Your task to perform on an android device: set the timer Image 0: 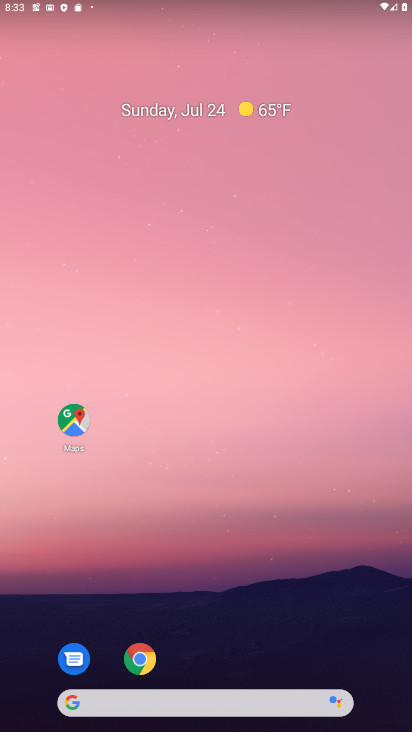
Step 0: drag from (255, 670) to (293, 44)
Your task to perform on an android device: set the timer Image 1: 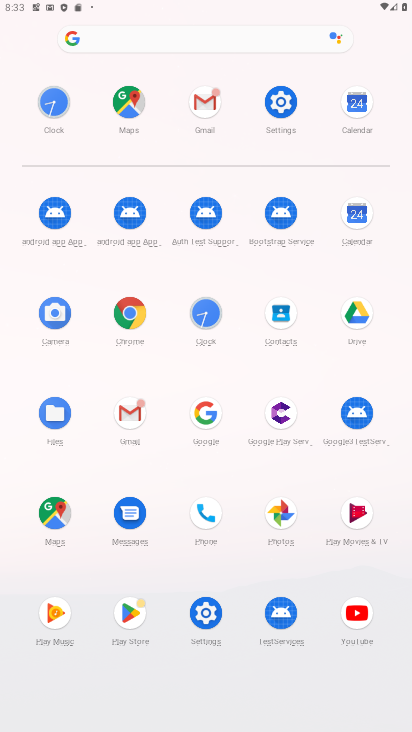
Step 1: click (204, 322)
Your task to perform on an android device: set the timer Image 2: 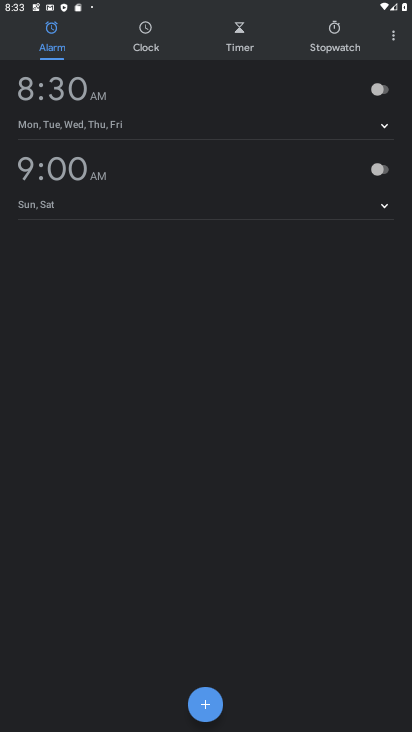
Step 2: click (237, 40)
Your task to perform on an android device: set the timer Image 3: 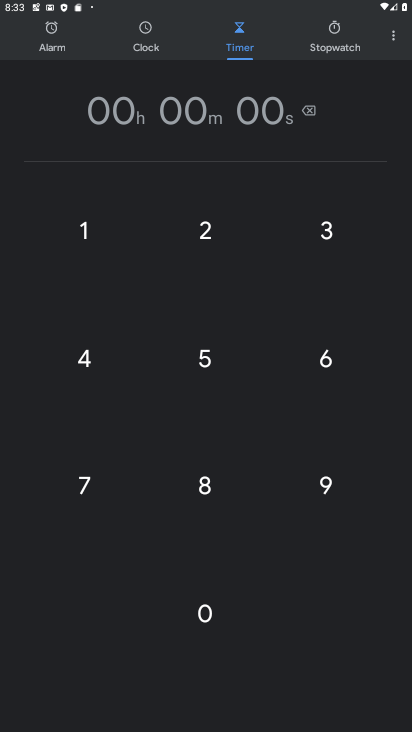
Step 3: click (197, 362)
Your task to perform on an android device: set the timer Image 4: 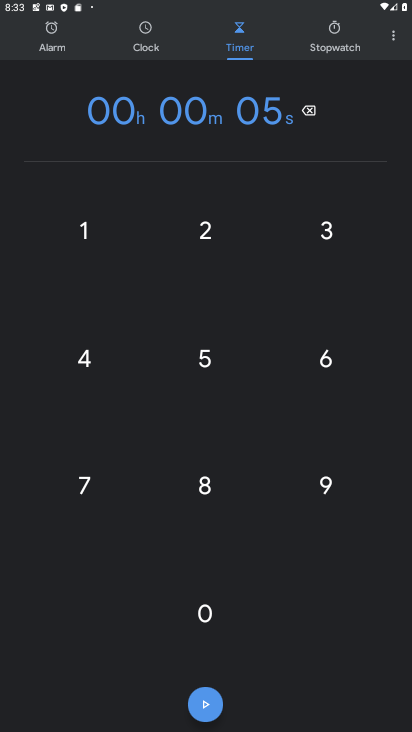
Step 4: click (204, 602)
Your task to perform on an android device: set the timer Image 5: 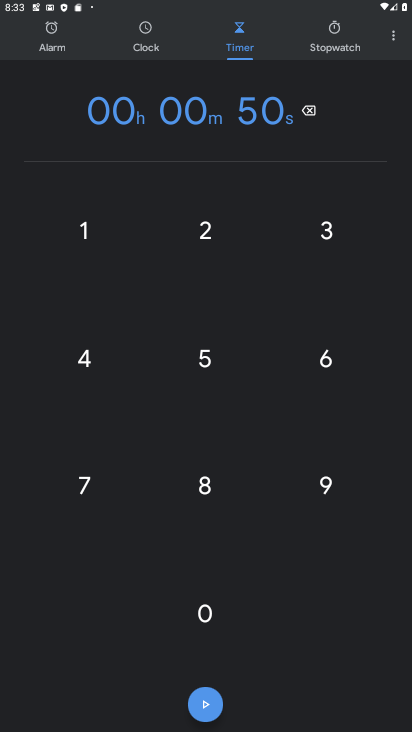
Step 5: click (206, 704)
Your task to perform on an android device: set the timer Image 6: 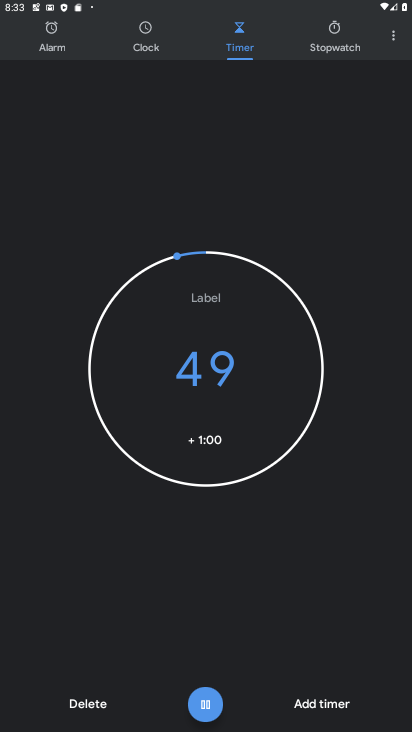
Step 6: task complete